Your task to perform on an android device: toggle notifications settings in the gmail app Image 0: 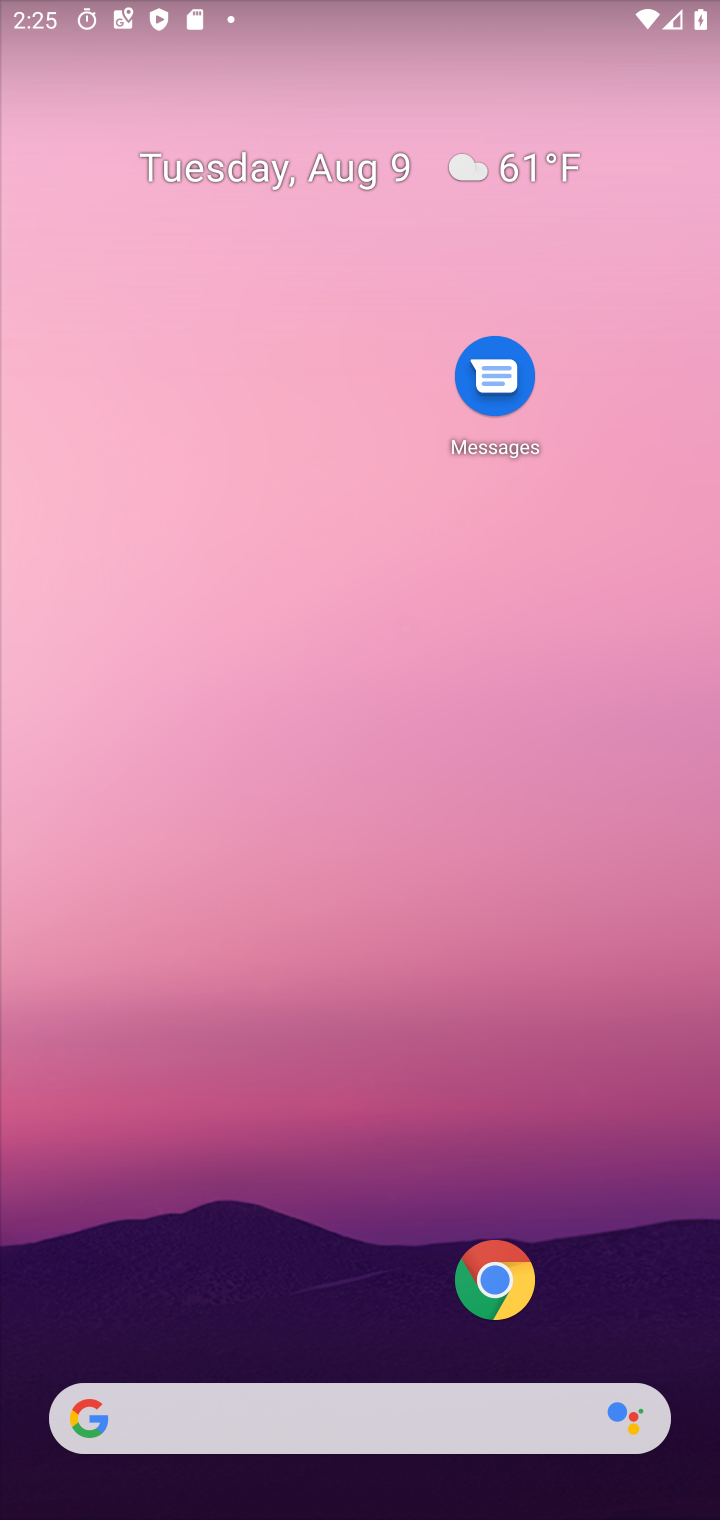
Step 0: drag from (386, 1081) to (492, 304)
Your task to perform on an android device: toggle notifications settings in the gmail app Image 1: 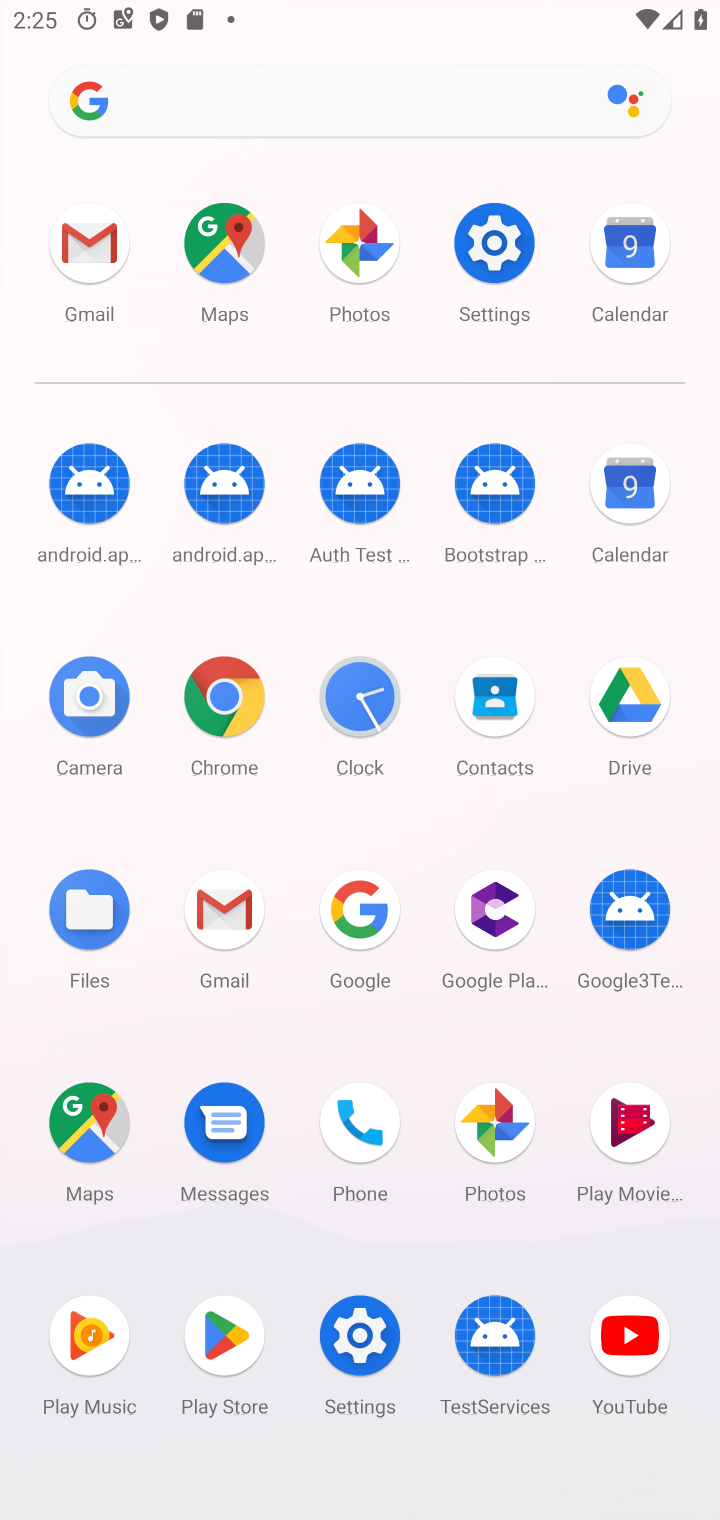
Step 1: click (92, 228)
Your task to perform on an android device: toggle notifications settings in the gmail app Image 2: 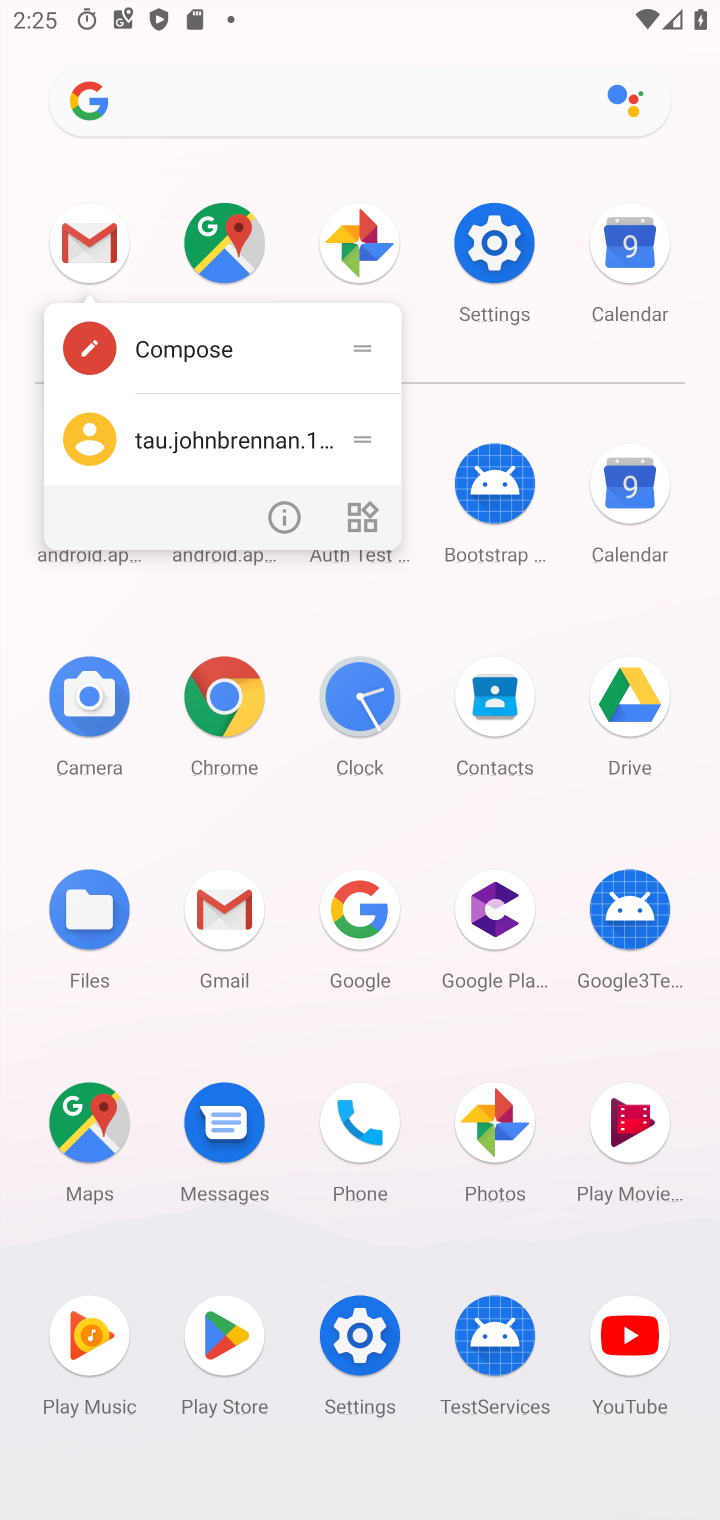
Step 2: click (105, 238)
Your task to perform on an android device: toggle notifications settings in the gmail app Image 3: 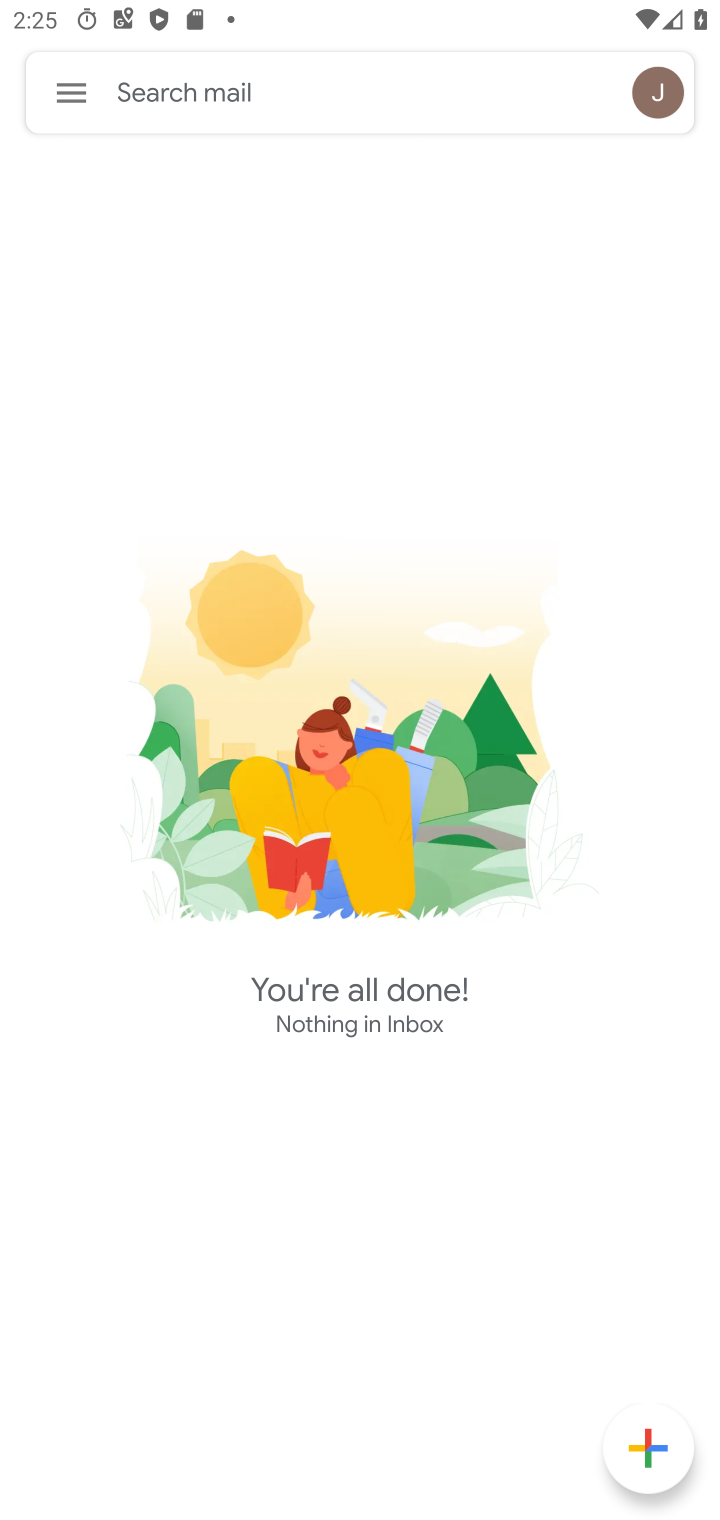
Step 3: click (53, 83)
Your task to perform on an android device: toggle notifications settings in the gmail app Image 4: 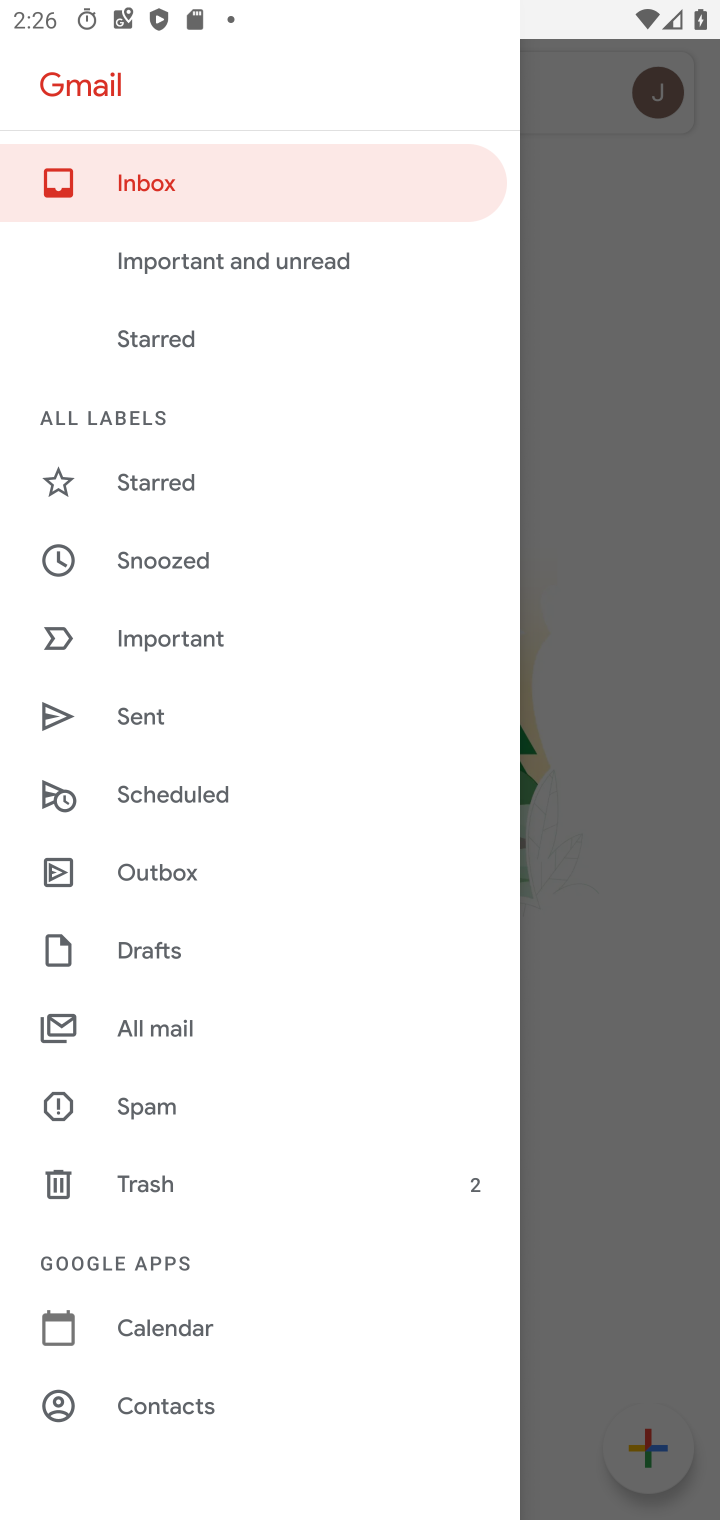
Step 4: drag from (326, 1306) to (416, 481)
Your task to perform on an android device: toggle notifications settings in the gmail app Image 5: 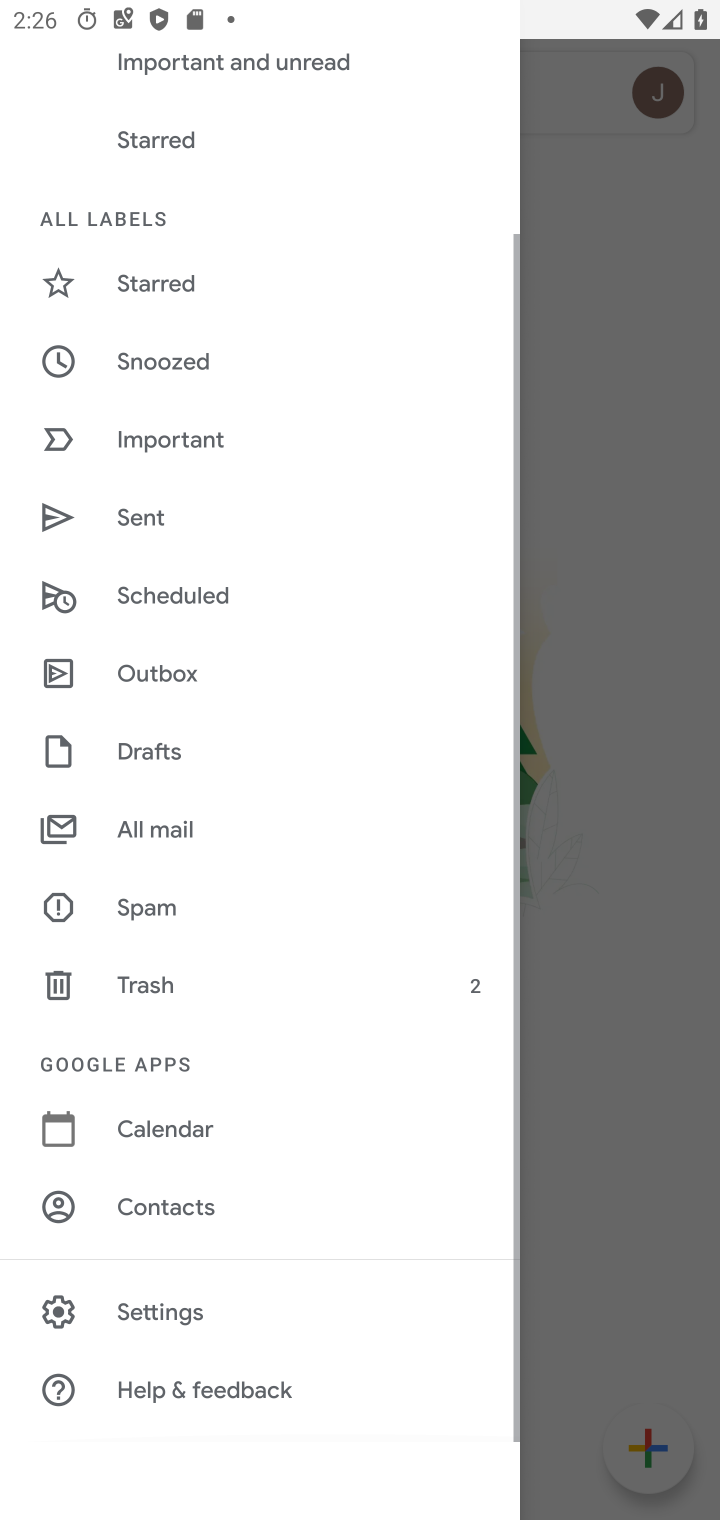
Step 5: click (185, 1317)
Your task to perform on an android device: toggle notifications settings in the gmail app Image 6: 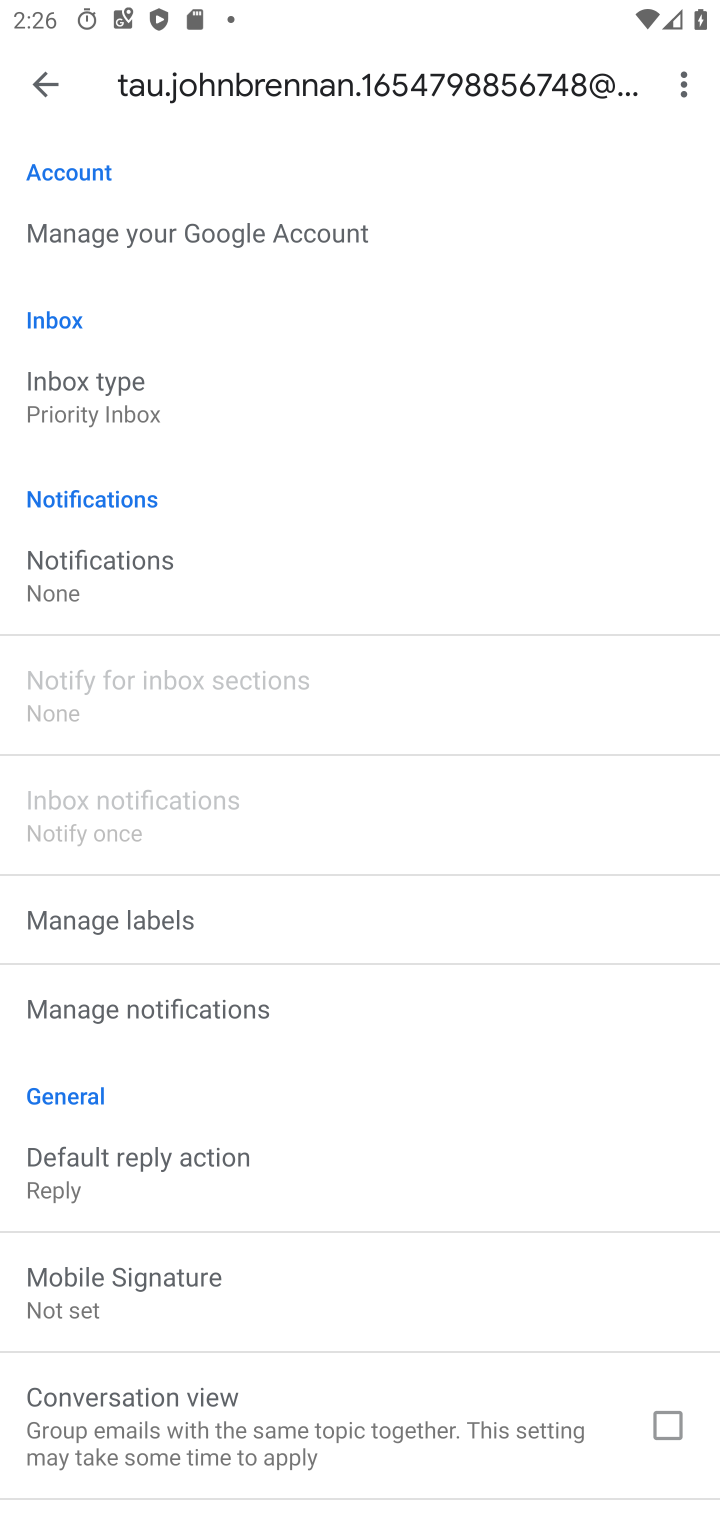
Step 6: click (101, 582)
Your task to perform on an android device: toggle notifications settings in the gmail app Image 7: 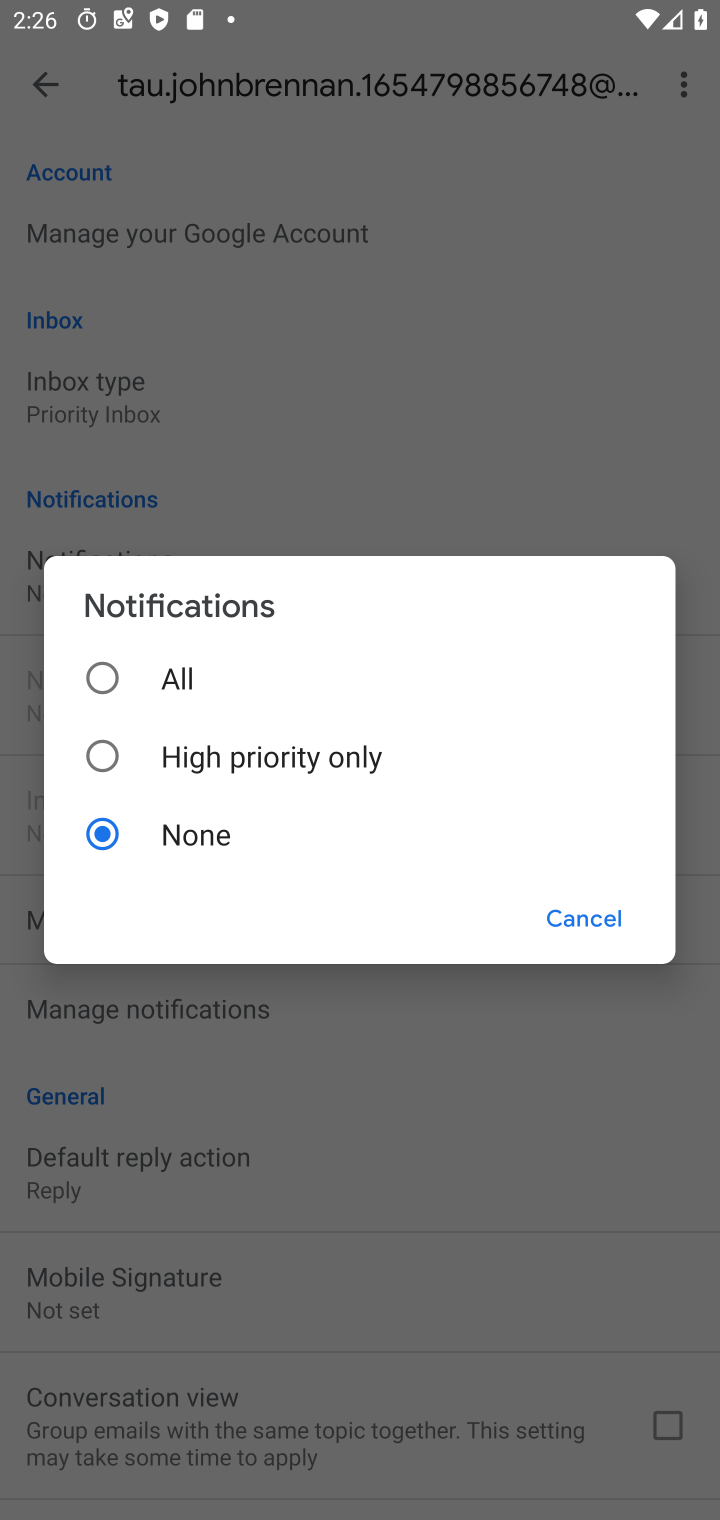
Step 7: click (129, 673)
Your task to perform on an android device: toggle notifications settings in the gmail app Image 8: 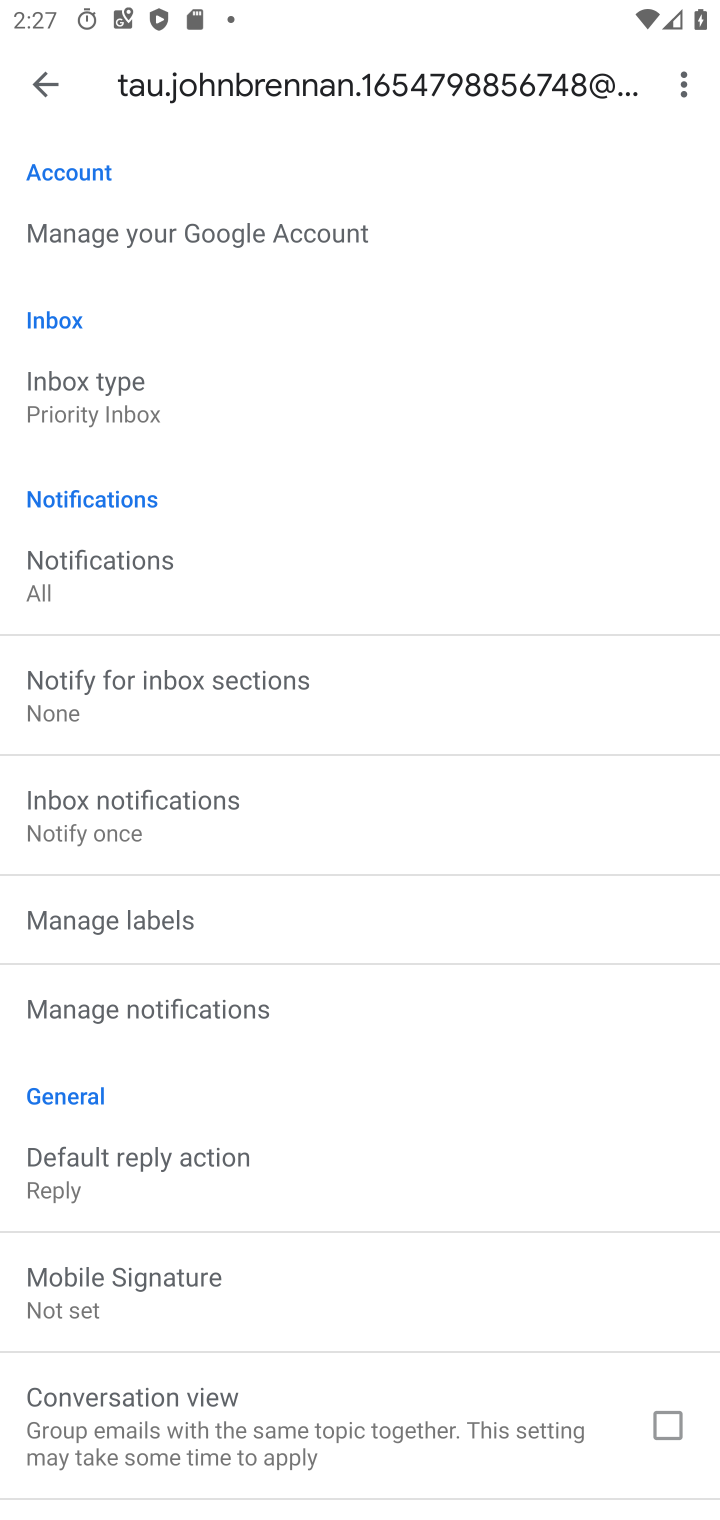
Step 8: task complete